Your task to perform on an android device: What's the weather going to be tomorrow? Image 0: 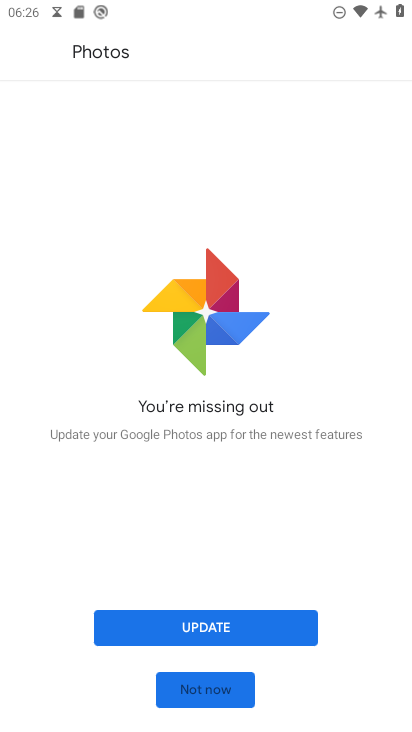
Step 0: press home button
Your task to perform on an android device: What's the weather going to be tomorrow? Image 1: 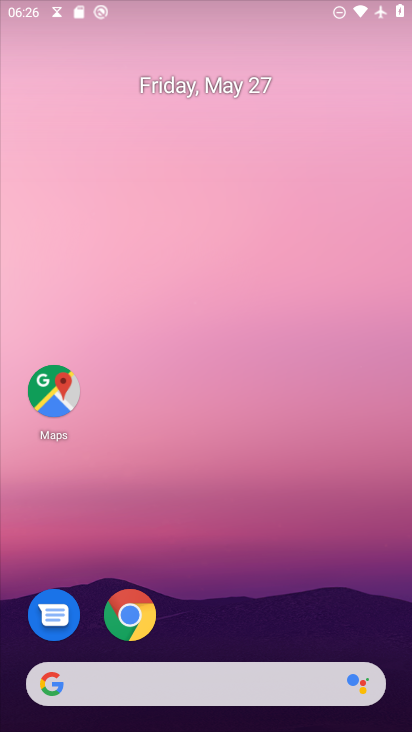
Step 1: drag from (280, 523) to (176, 27)
Your task to perform on an android device: What's the weather going to be tomorrow? Image 2: 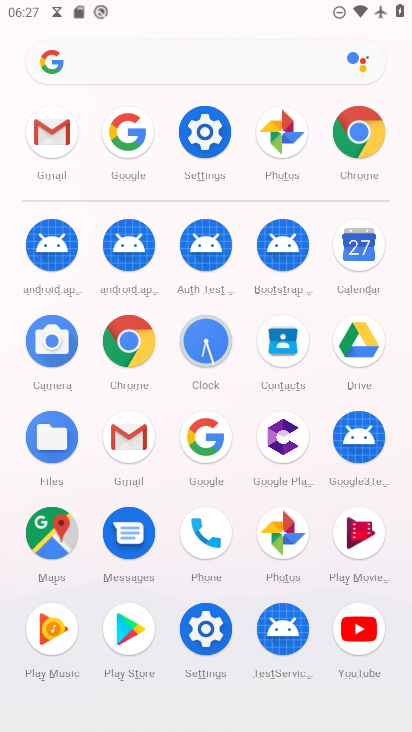
Step 2: click (200, 438)
Your task to perform on an android device: What's the weather going to be tomorrow? Image 3: 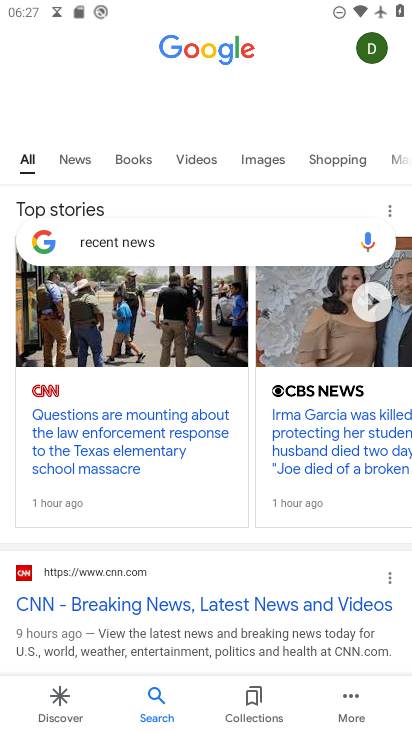
Step 3: click (132, 116)
Your task to perform on an android device: What's the weather going to be tomorrow? Image 4: 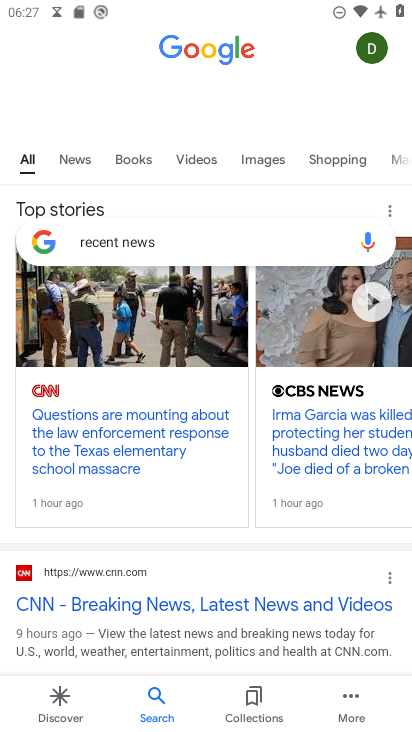
Step 4: press back button
Your task to perform on an android device: What's the weather going to be tomorrow? Image 5: 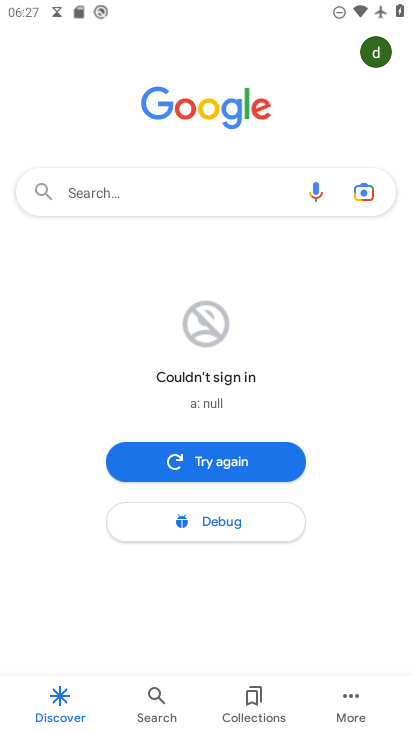
Step 5: click (208, 185)
Your task to perform on an android device: What's the weather going to be tomorrow? Image 6: 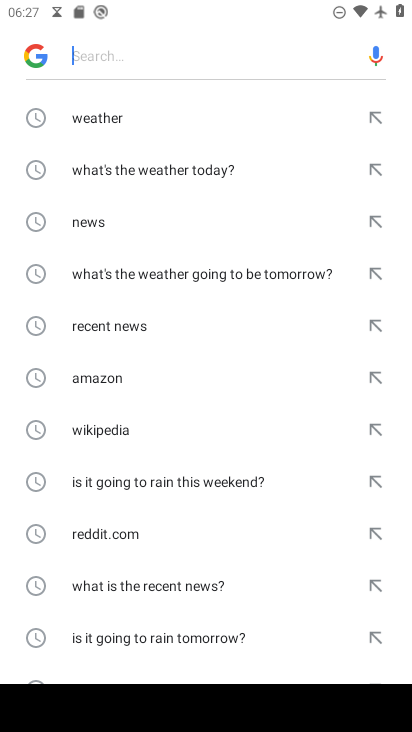
Step 6: click (140, 120)
Your task to perform on an android device: What's the weather going to be tomorrow? Image 7: 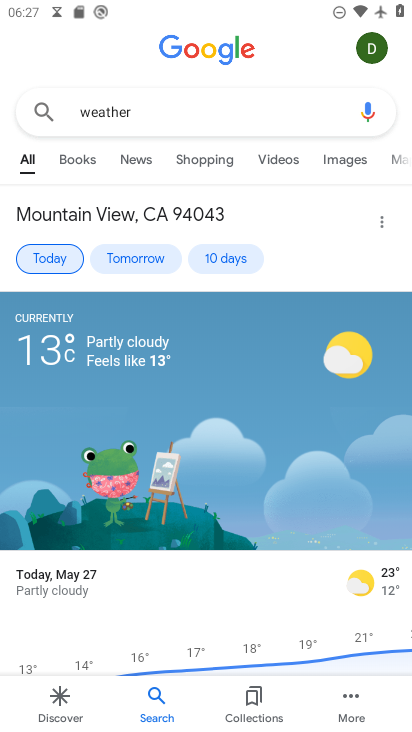
Step 7: click (139, 252)
Your task to perform on an android device: What's the weather going to be tomorrow? Image 8: 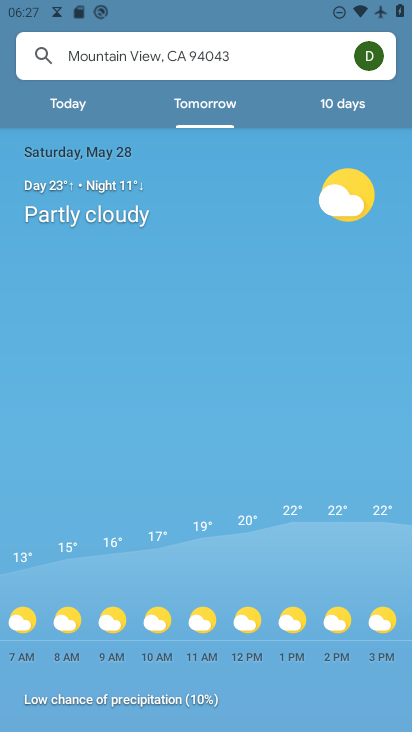
Step 8: task complete